Your task to perform on an android device: toggle pop-ups in chrome Image 0: 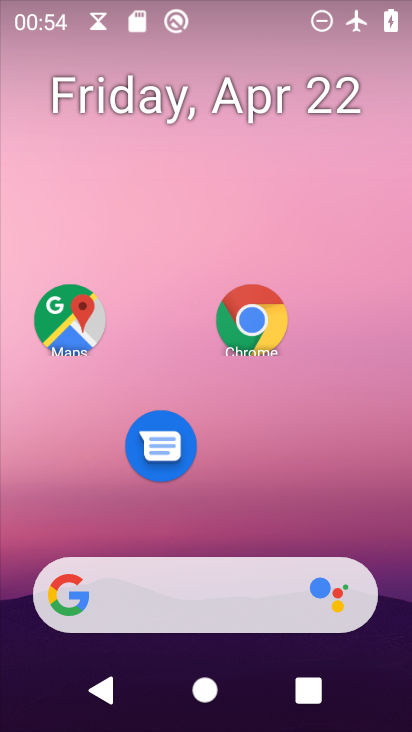
Step 0: click (207, 0)
Your task to perform on an android device: toggle pop-ups in chrome Image 1: 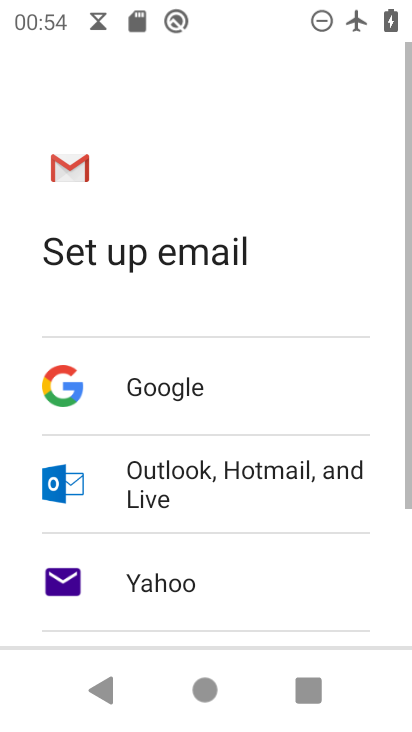
Step 1: drag from (230, 588) to (345, 124)
Your task to perform on an android device: toggle pop-ups in chrome Image 2: 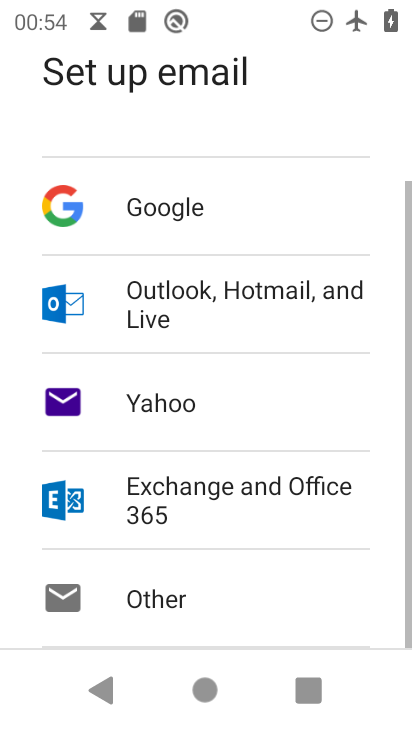
Step 2: drag from (305, 589) to (292, 236)
Your task to perform on an android device: toggle pop-ups in chrome Image 3: 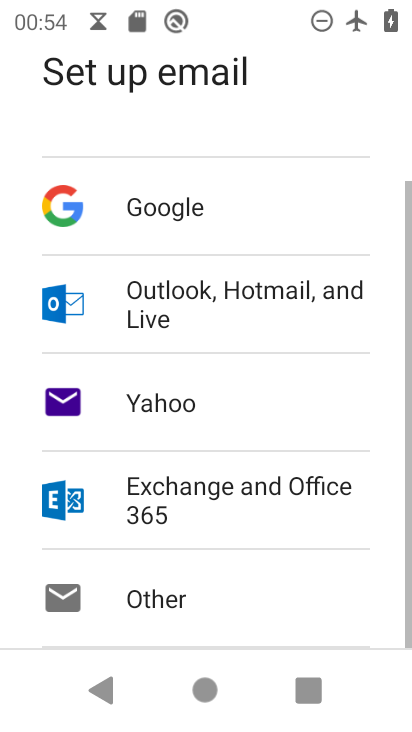
Step 3: drag from (211, 403) to (294, 149)
Your task to perform on an android device: toggle pop-ups in chrome Image 4: 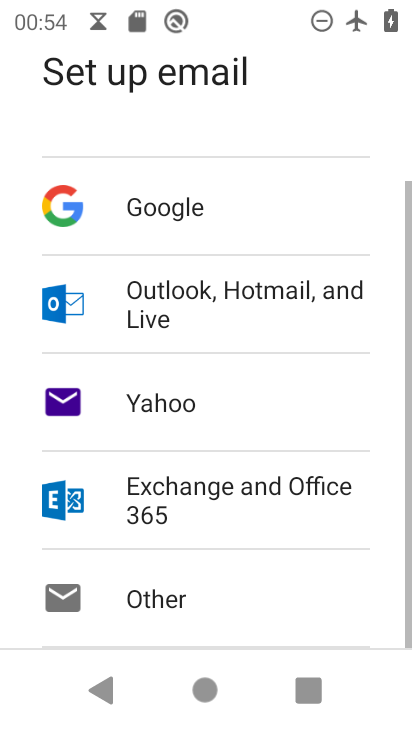
Step 4: drag from (209, 213) to (235, 502)
Your task to perform on an android device: toggle pop-ups in chrome Image 5: 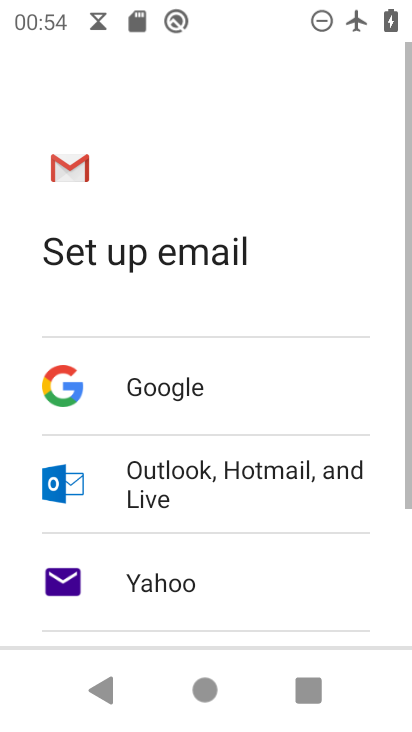
Step 5: press home button
Your task to perform on an android device: toggle pop-ups in chrome Image 6: 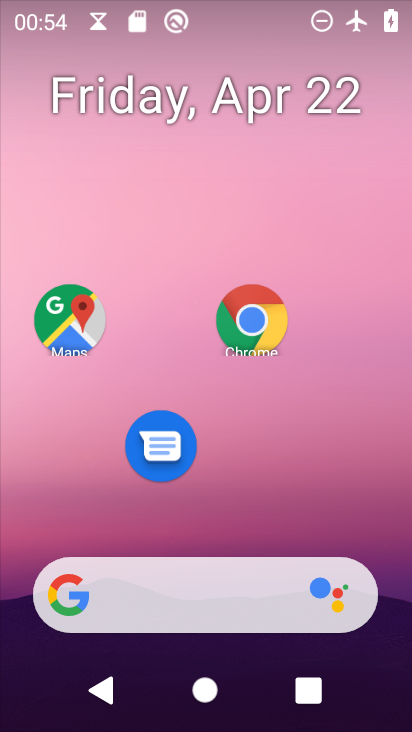
Step 6: drag from (219, 527) to (216, 294)
Your task to perform on an android device: toggle pop-ups in chrome Image 7: 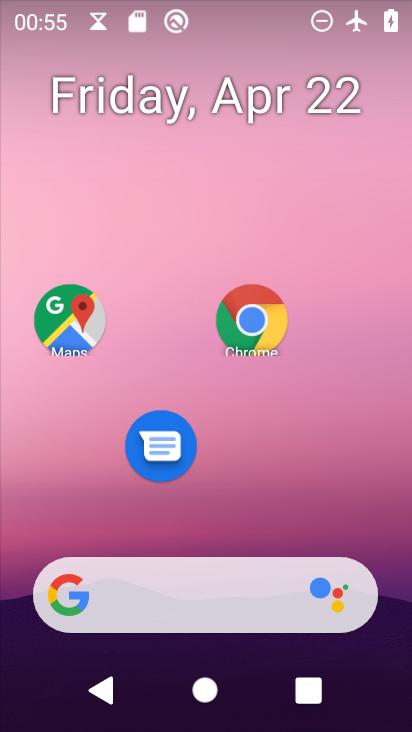
Step 7: drag from (220, 405) to (210, 89)
Your task to perform on an android device: toggle pop-ups in chrome Image 8: 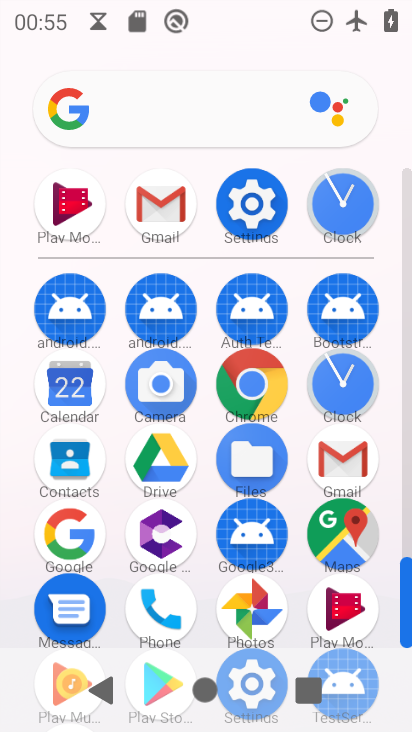
Step 8: click (246, 390)
Your task to perform on an android device: toggle pop-ups in chrome Image 9: 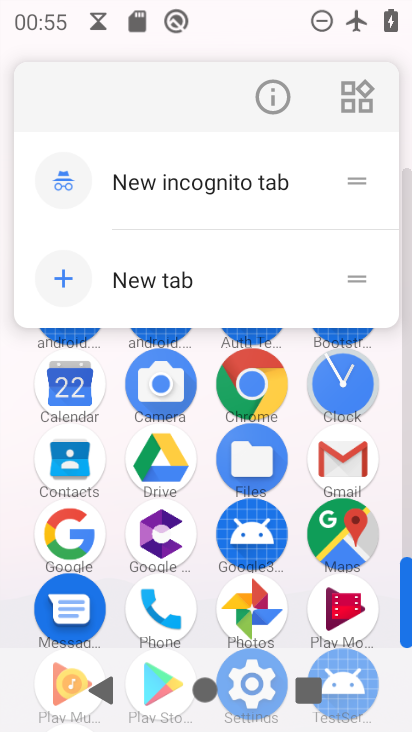
Step 9: click (263, 95)
Your task to perform on an android device: toggle pop-ups in chrome Image 10: 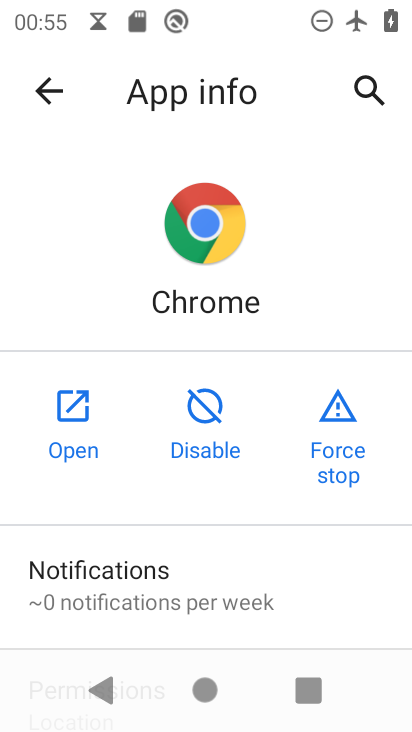
Step 10: click (67, 422)
Your task to perform on an android device: toggle pop-ups in chrome Image 11: 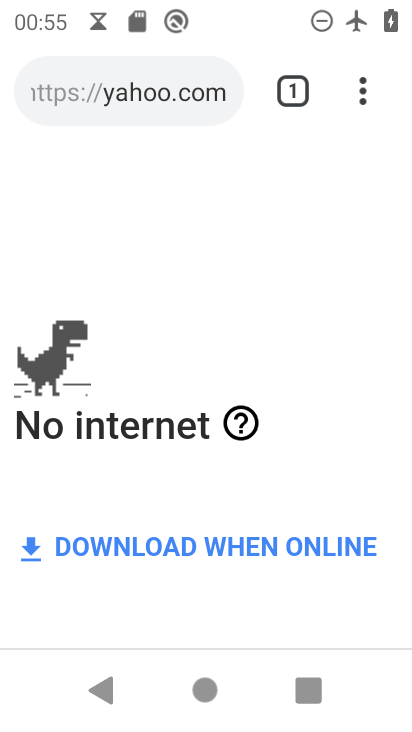
Step 11: drag from (287, 401) to (325, 222)
Your task to perform on an android device: toggle pop-ups in chrome Image 12: 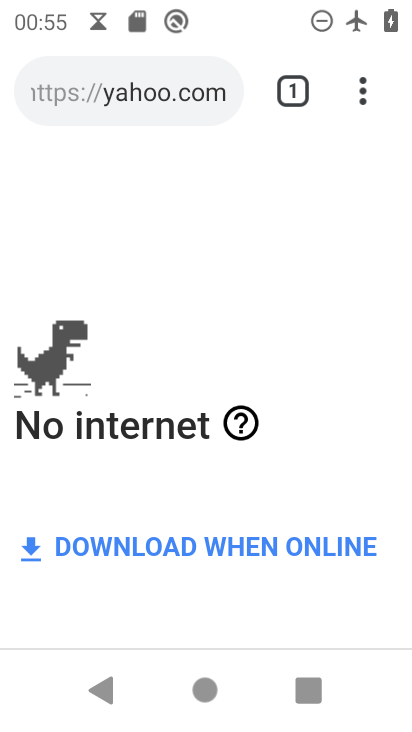
Step 12: drag from (195, 376) to (215, 256)
Your task to perform on an android device: toggle pop-ups in chrome Image 13: 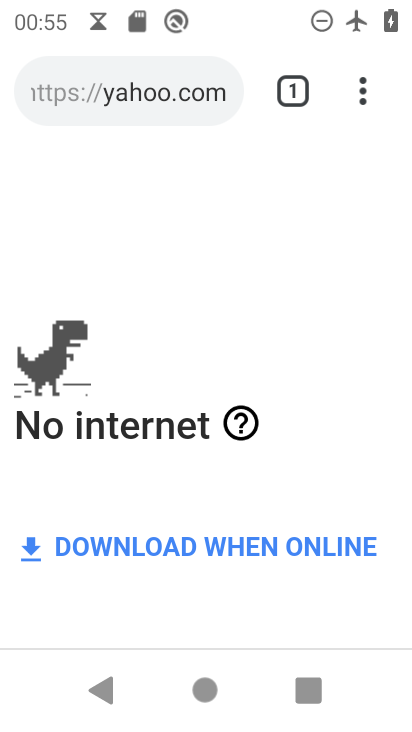
Step 13: drag from (356, 86) to (158, 463)
Your task to perform on an android device: toggle pop-ups in chrome Image 14: 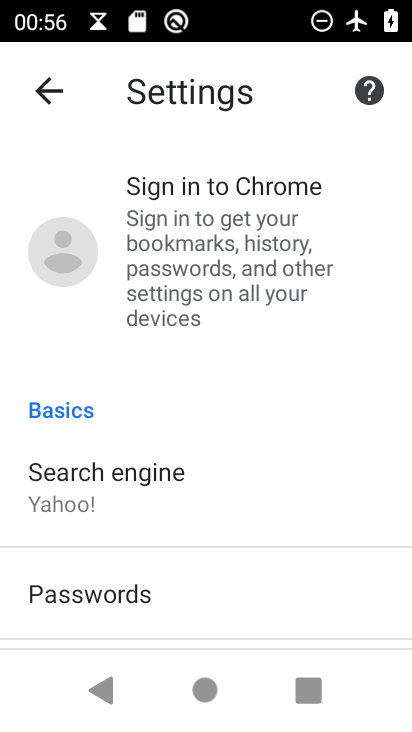
Step 14: drag from (210, 558) to (274, 156)
Your task to perform on an android device: toggle pop-ups in chrome Image 15: 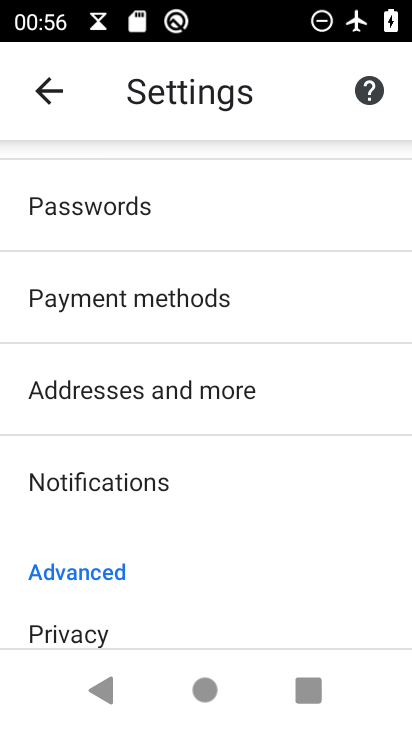
Step 15: drag from (153, 527) to (190, 204)
Your task to perform on an android device: toggle pop-ups in chrome Image 16: 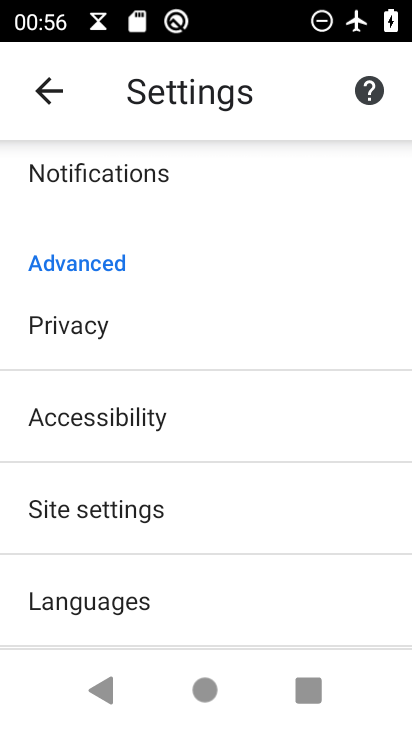
Step 16: click (140, 506)
Your task to perform on an android device: toggle pop-ups in chrome Image 17: 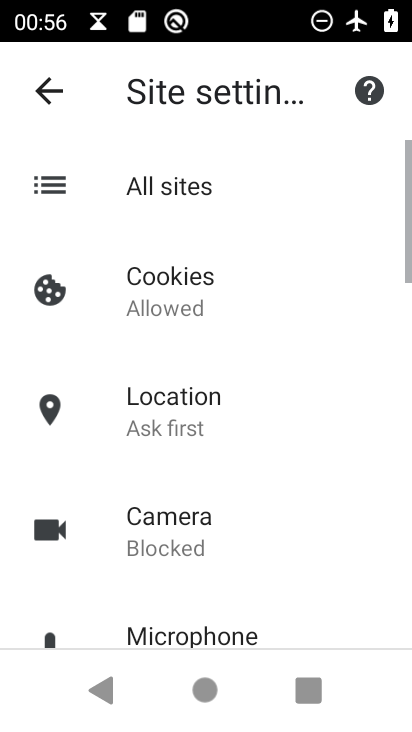
Step 17: drag from (262, 536) to (211, 182)
Your task to perform on an android device: toggle pop-ups in chrome Image 18: 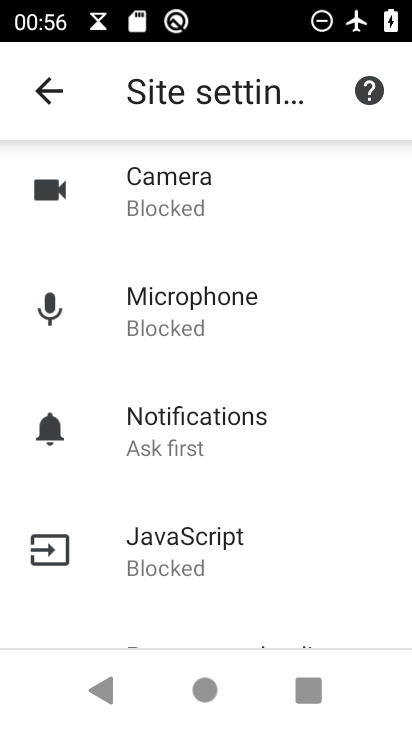
Step 18: drag from (235, 456) to (231, 216)
Your task to perform on an android device: toggle pop-ups in chrome Image 19: 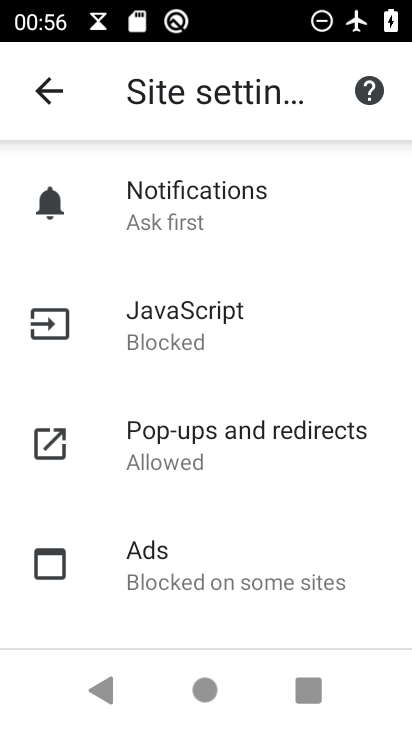
Step 19: click (179, 434)
Your task to perform on an android device: toggle pop-ups in chrome Image 20: 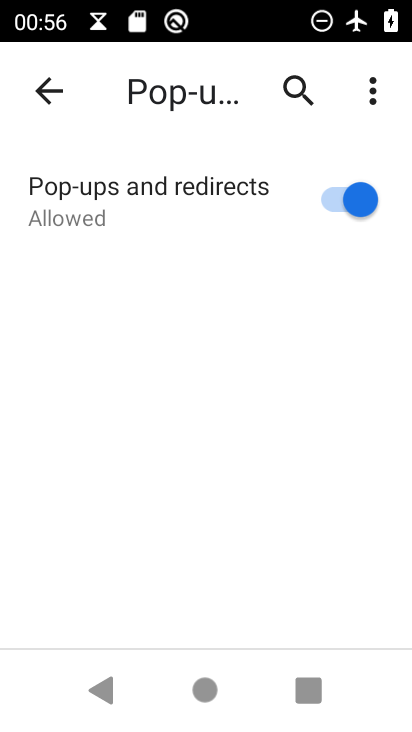
Step 20: task complete